Your task to perform on an android device: Play the last video I watched on Youtube Image 0: 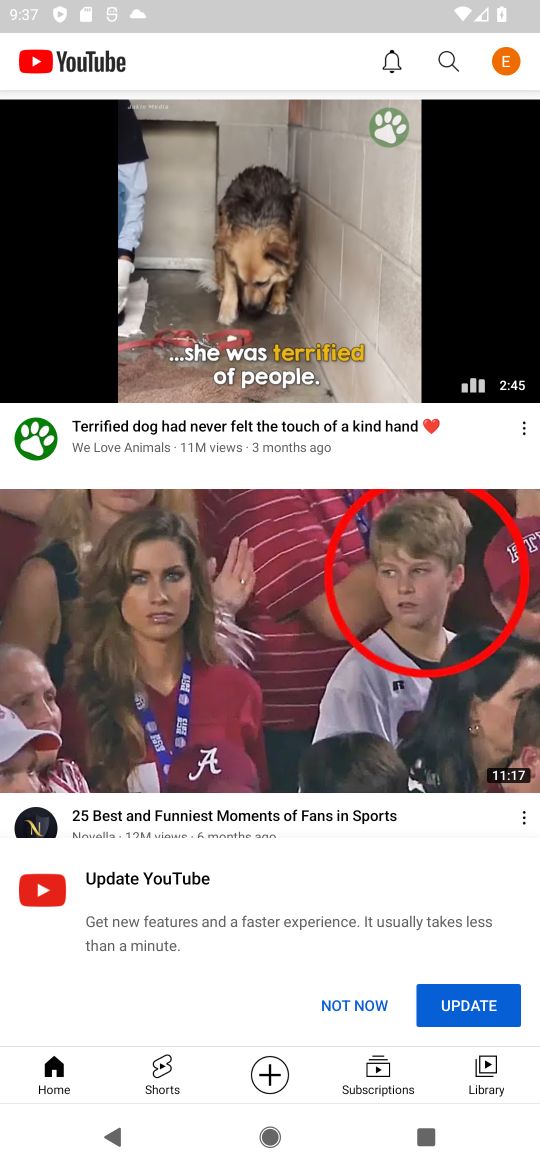
Step 0: click (488, 1077)
Your task to perform on an android device: Play the last video I watched on Youtube Image 1: 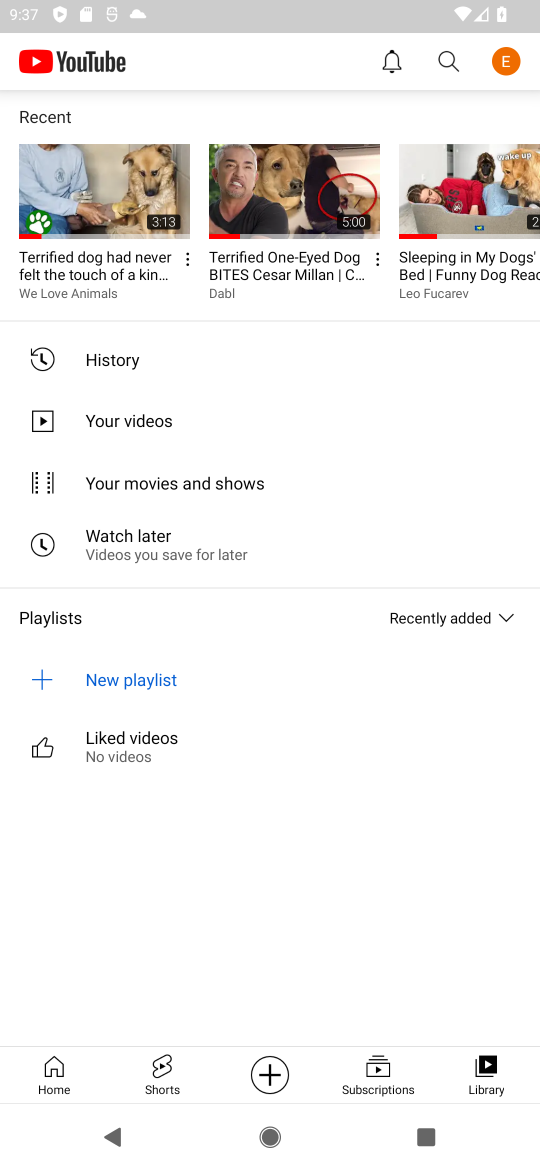
Step 1: click (119, 213)
Your task to perform on an android device: Play the last video I watched on Youtube Image 2: 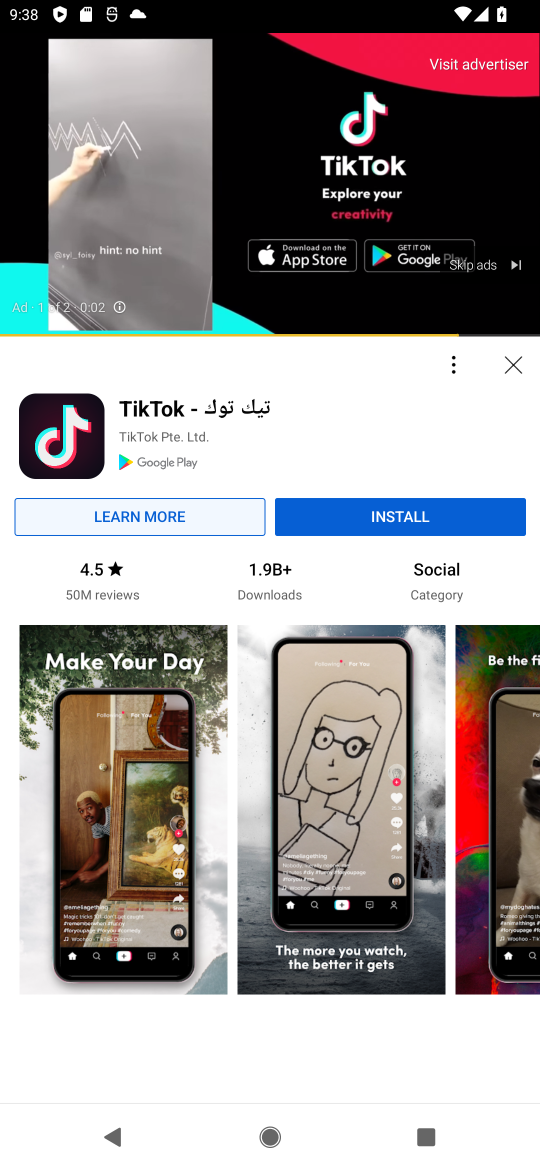
Step 2: task complete